Your task to perform on an android device: What's the weather today? Image 0: 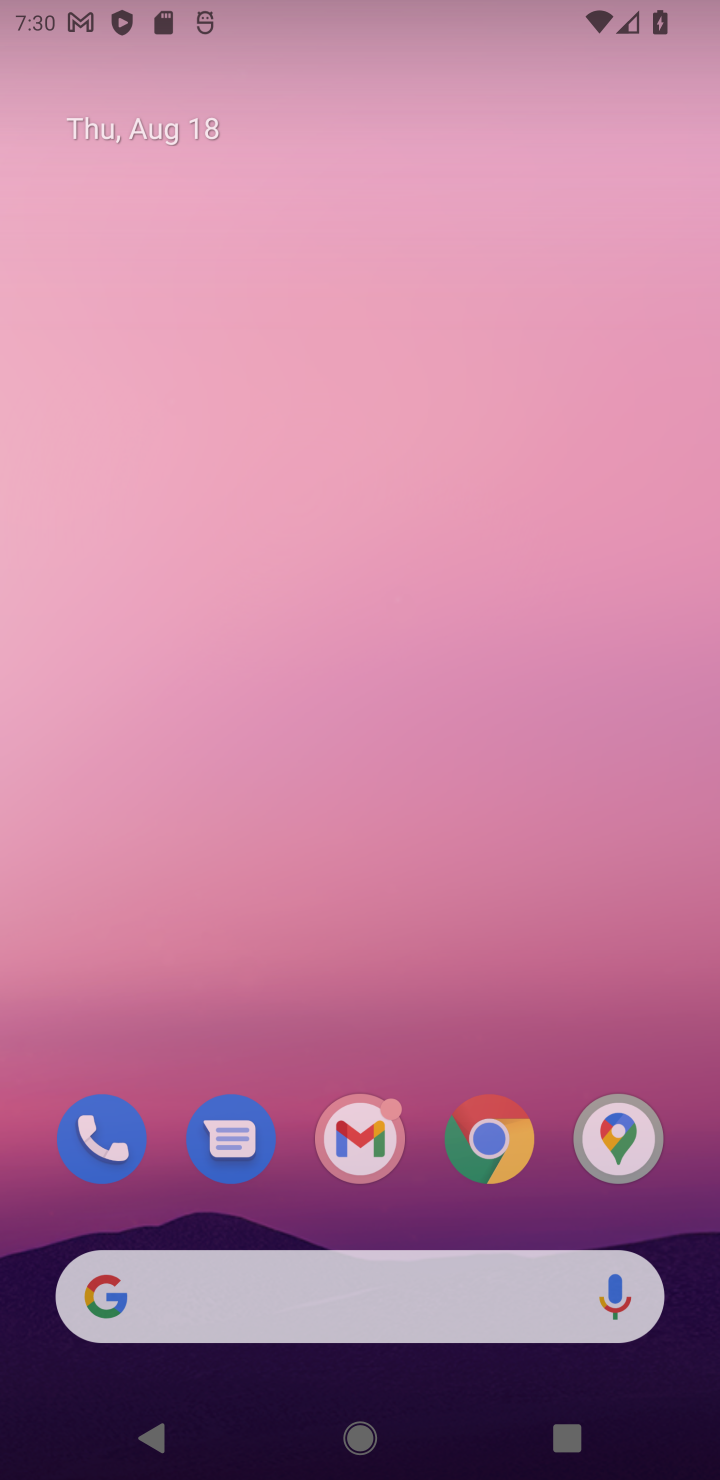
Step 0: press home button
Your task to perform on an android device: What's the weather today? Image 1: 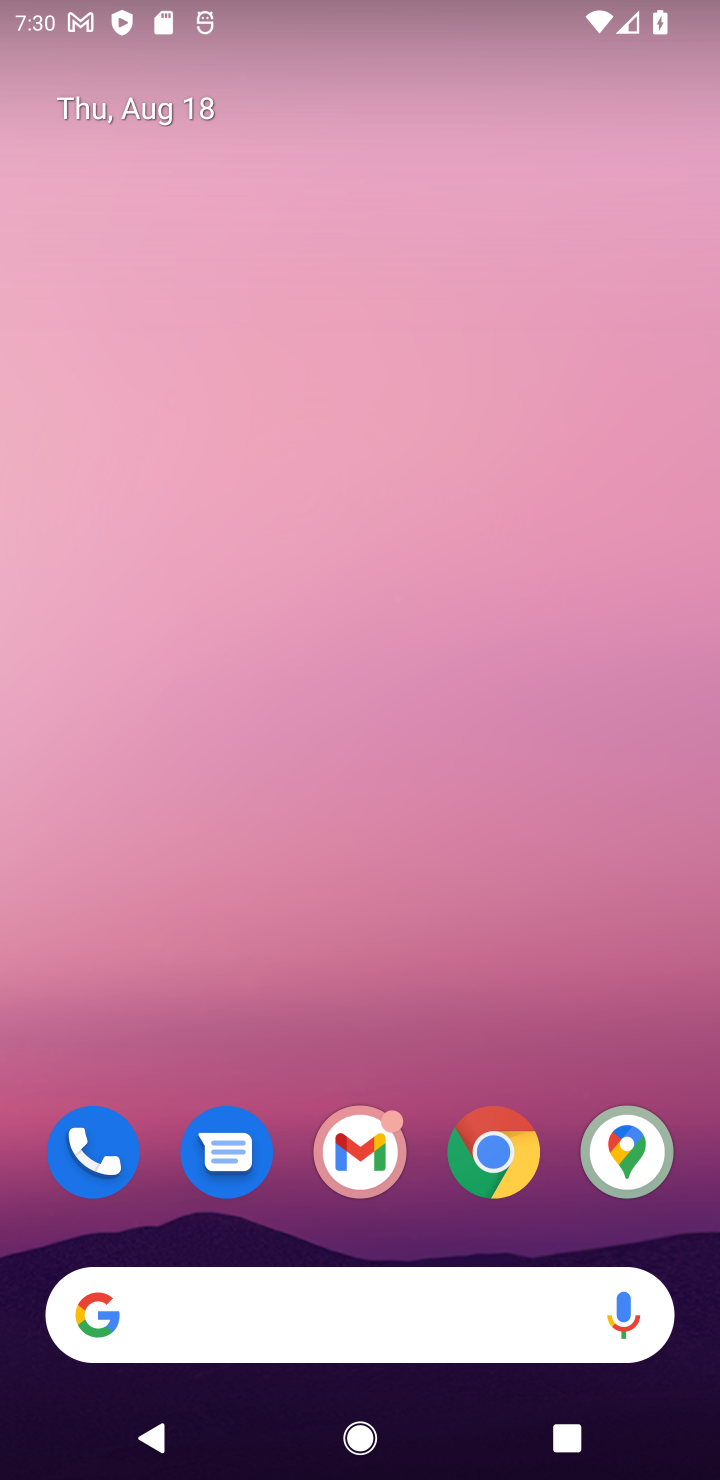
Step 1: click (91, 1328)
Your task to perform on an android device: What's the weather today? Image 2: 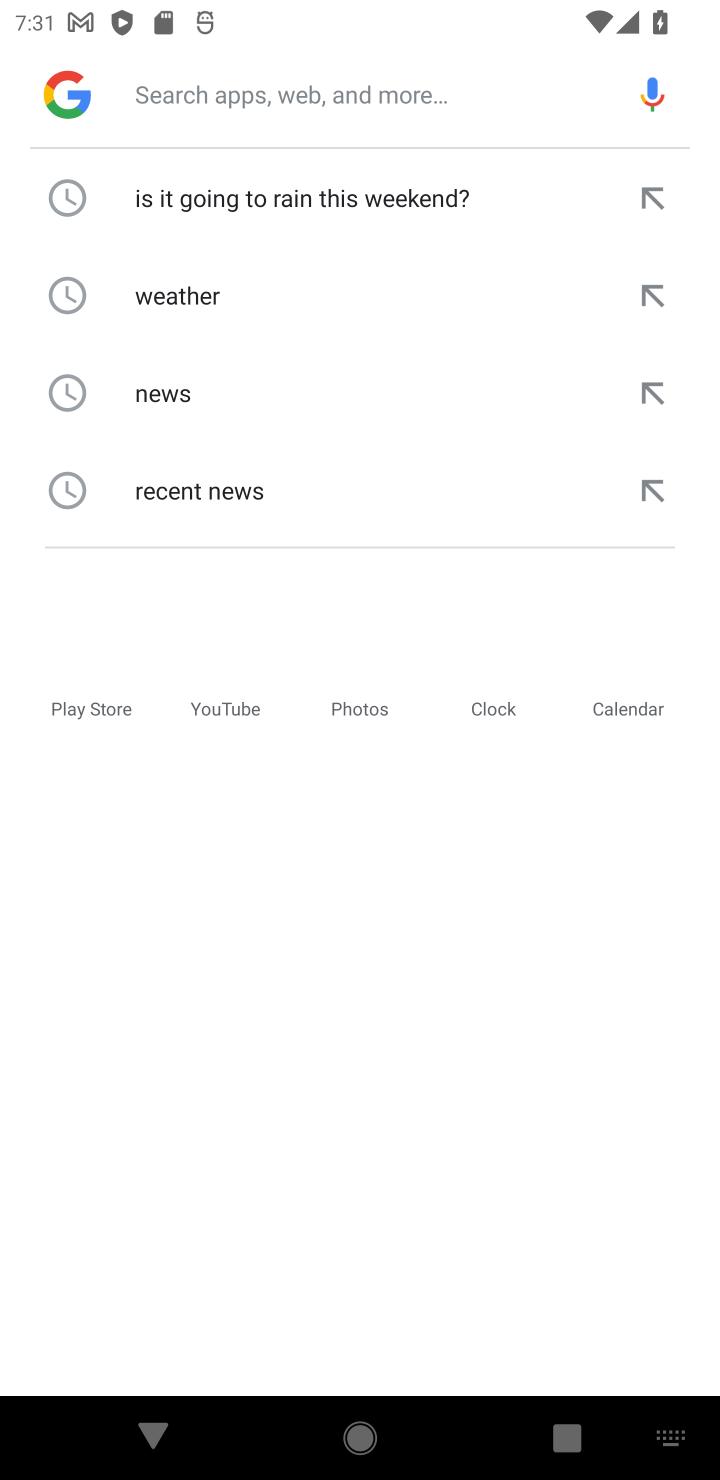
Step 2: type "weather today?"
Your task to perform on an android device: What's the weather today? Image 3: 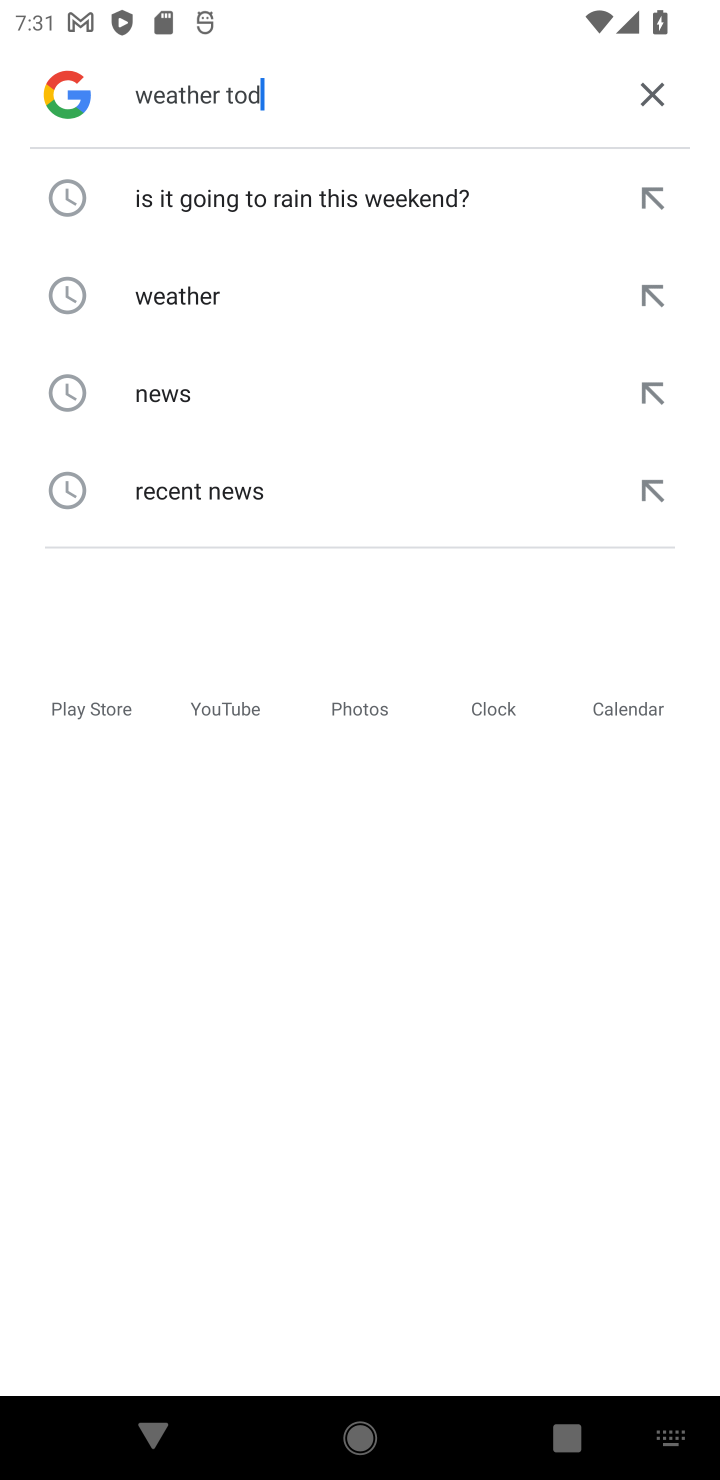
Step 3: press enter
Your task to perform on an android device: What's the weather today? Image 4: 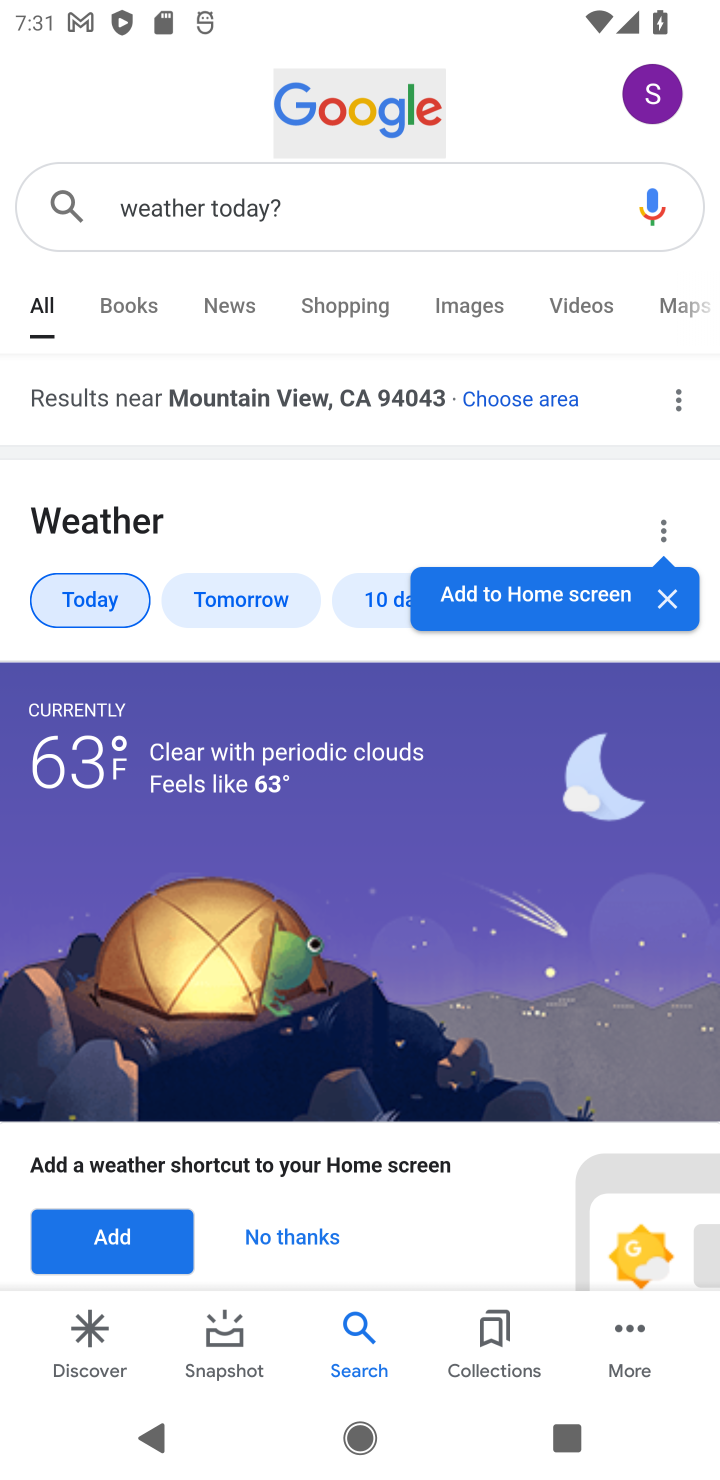
Step 4: task complete